Your task to perform on an android device: Open settings on Google Maps Image 0: 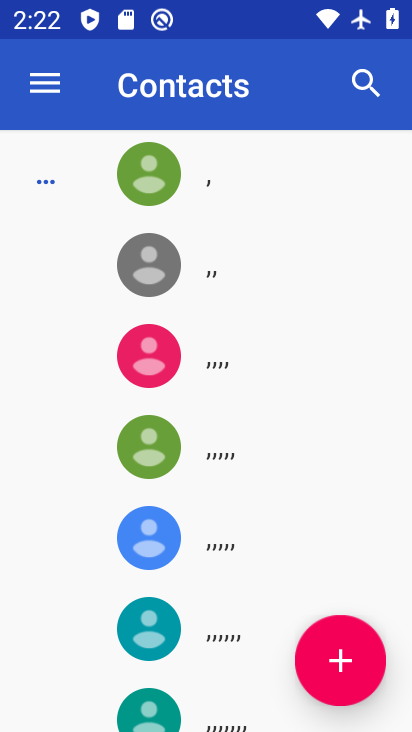
Step 0: press back button
Your task to perform on an android device: Open settings on Google Maps Image 1: 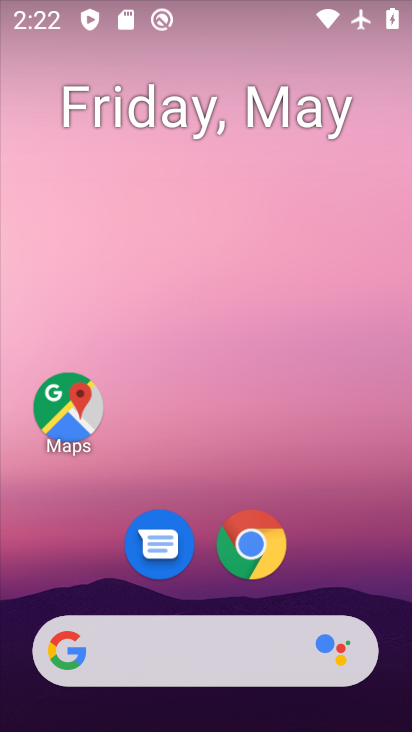
Step 1: click (63, 407)
Your task to perform on an android device: Open settings on Google Maps Image 2: 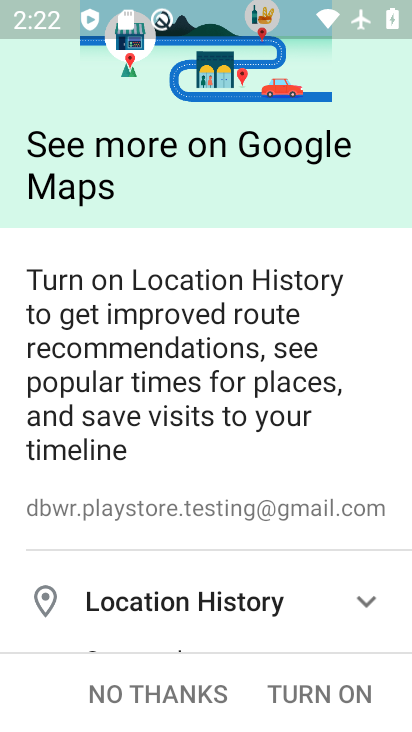
Step 2: task complete